Your task to perform on an android device: find photos in the google photos app Image 0: 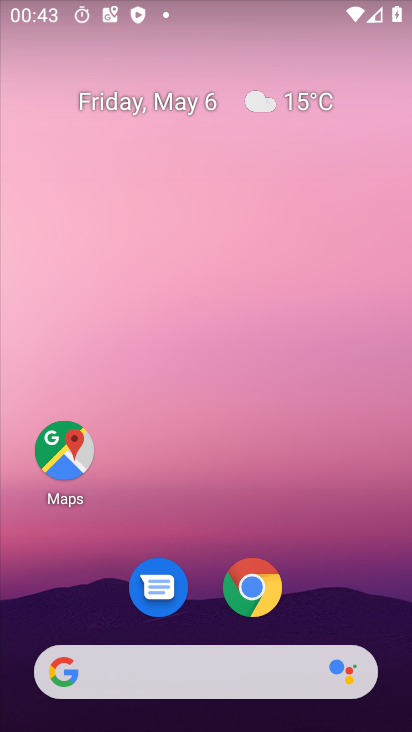
Step 0: drag from (380, 627) to (336, 263)
Your task to perform on an android device: find photos in the google photos app Image 1: 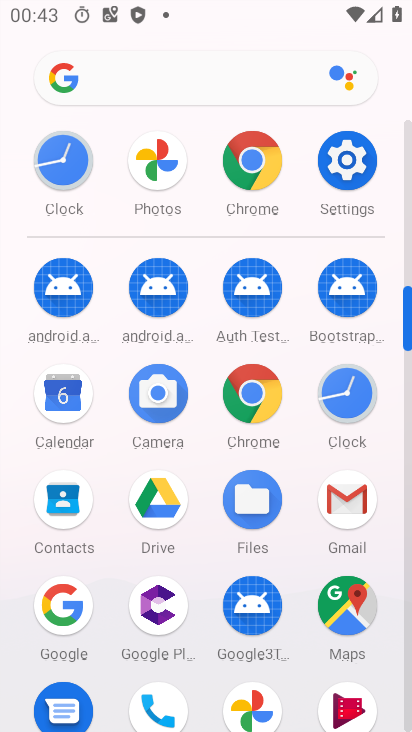
Step 1: click (256, 699)
Your task to perform on an android device: find photos in the google photos app Image 2: 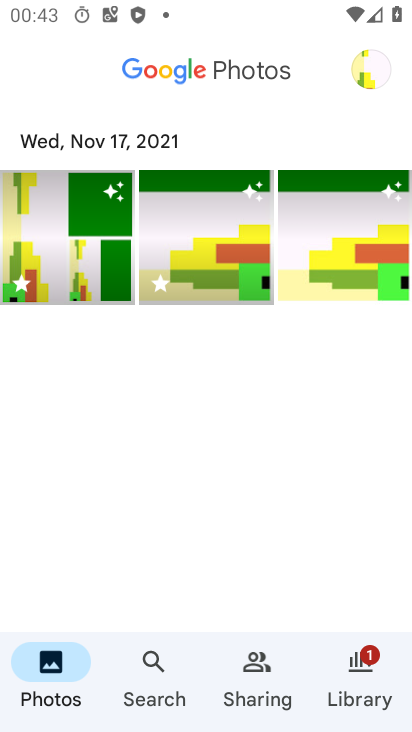
Step 2: click (76, 245)
Your task to perform on an android device: find photos in the google photos app Image 3: 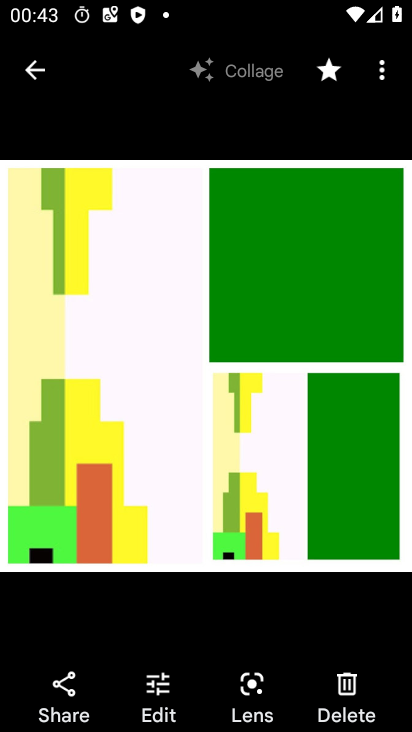
Step 3: click (37, 71)
Your task to perform on an android device: find photos in the google photos app Image 4: 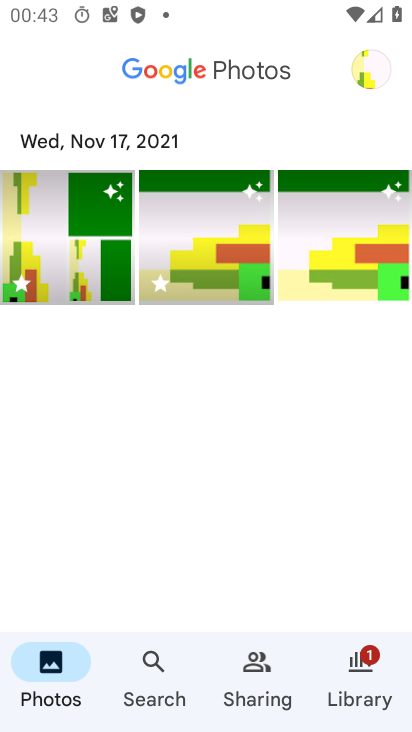
Step 4: click (195, 280)
Your task to perform on an android device: find photos in the google photos app Image 5: 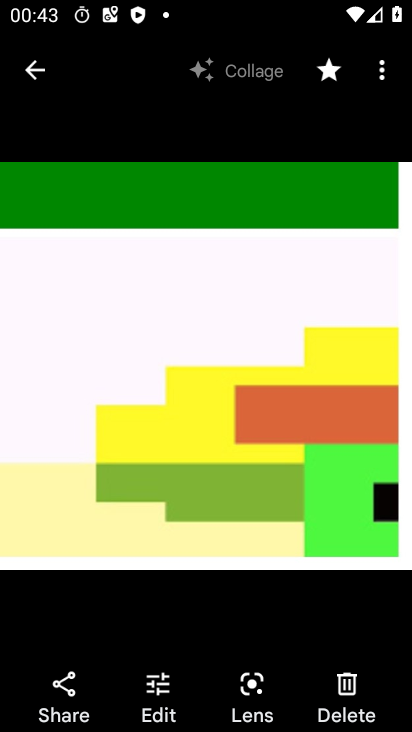
Step 5: click (35, 68)
Your task to perform on an android device: find photos in the google photos app Image 6: 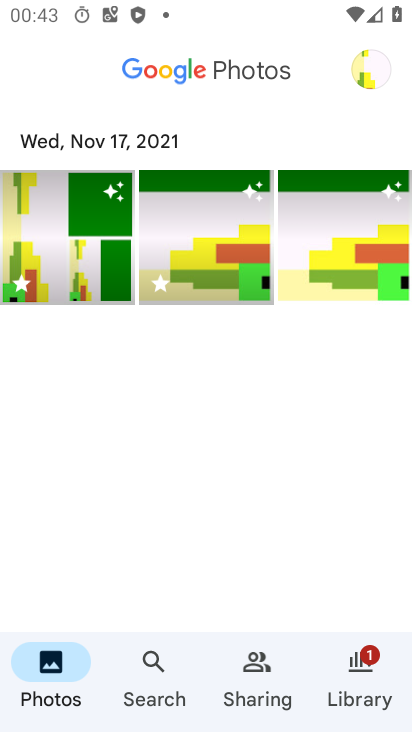
Step 6: task complete